Your task to perform on an android device: Open settings Image 0: 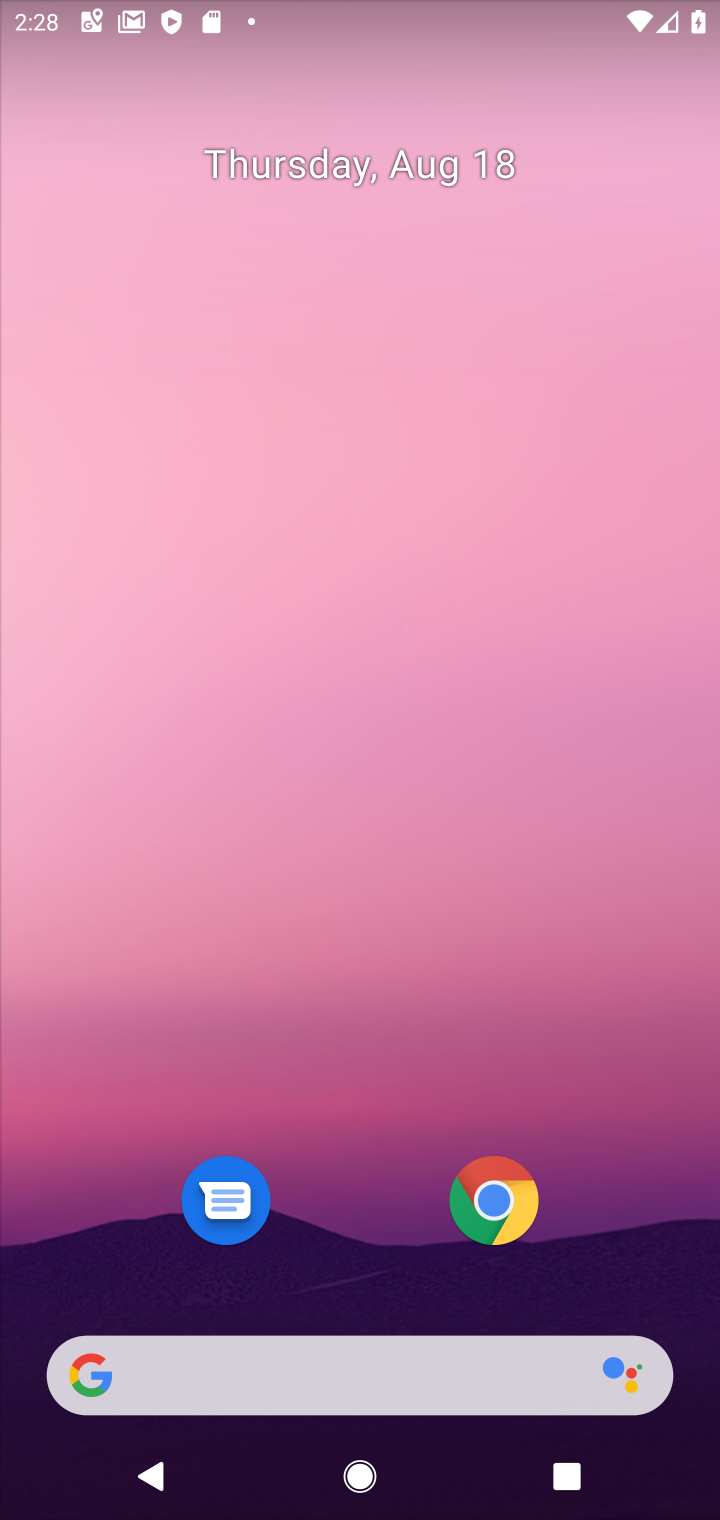
Step 0: press home button
Your task to perform on an android device: Open settings Image 1: 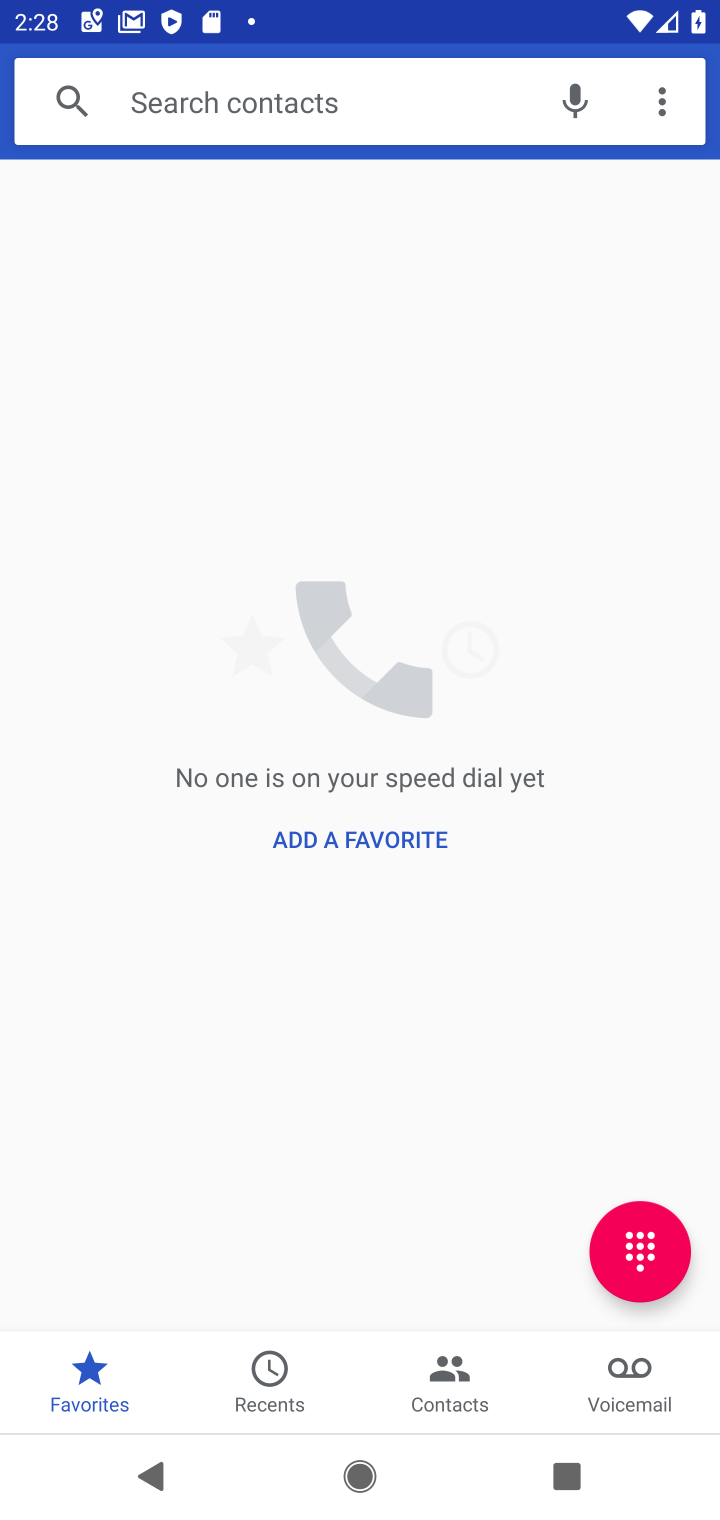
Step 1: drag from (371, 16) to (285, 19)
Your task to perform on an android device: Open settings Image 2: 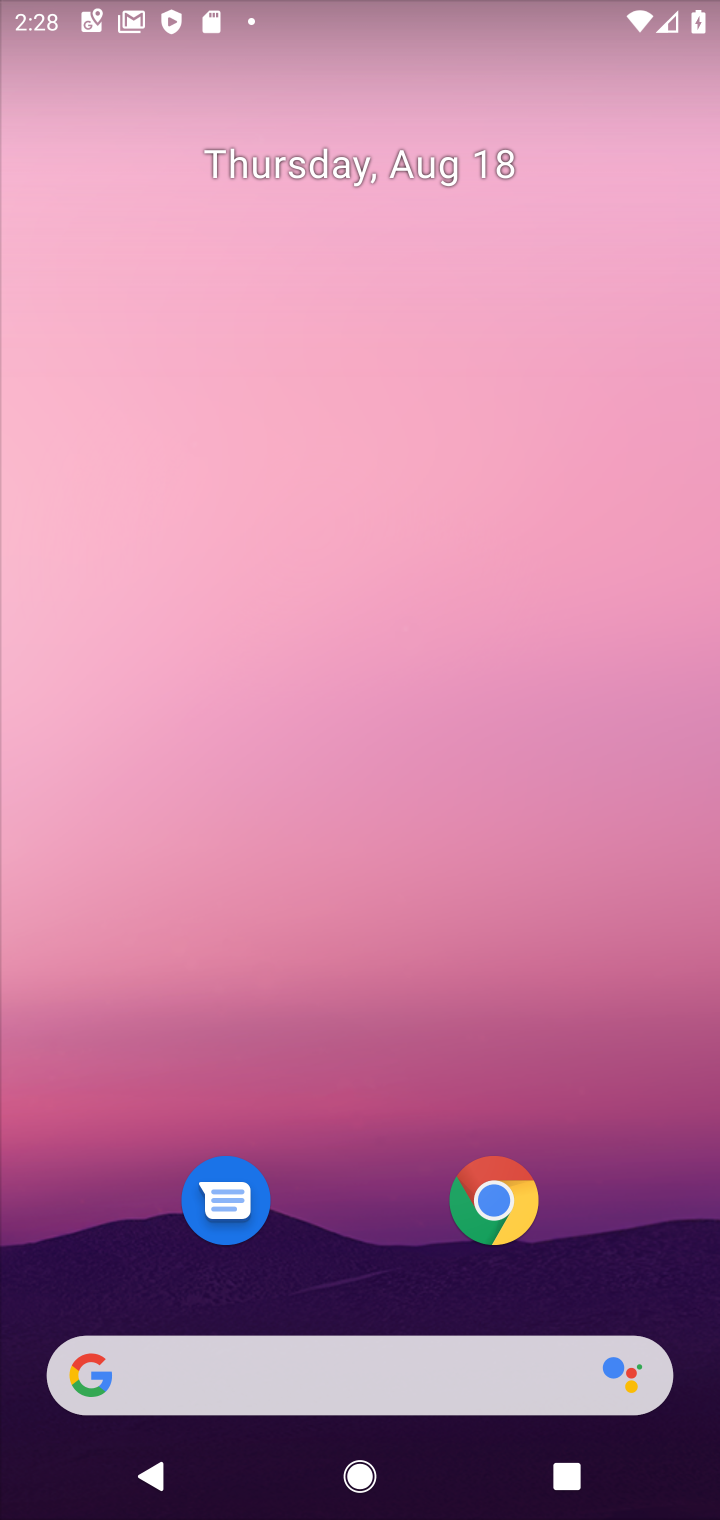
Step 2: drag from (361, 1271) to (513, 67)
Your task to perform on an android device: Open settings Image 3: 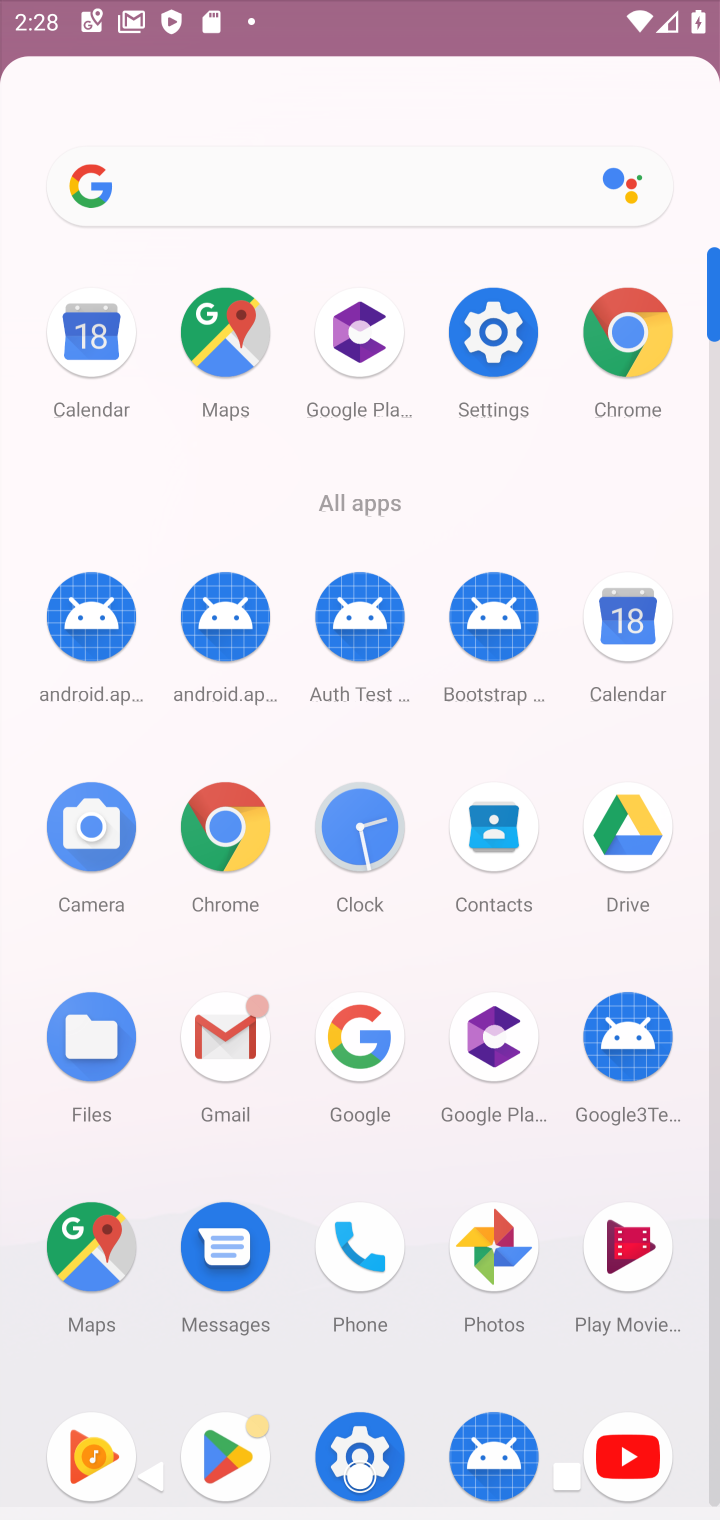
Step 3: click (490, 258)
Your task to perform on an android device: Open settings Image 4: 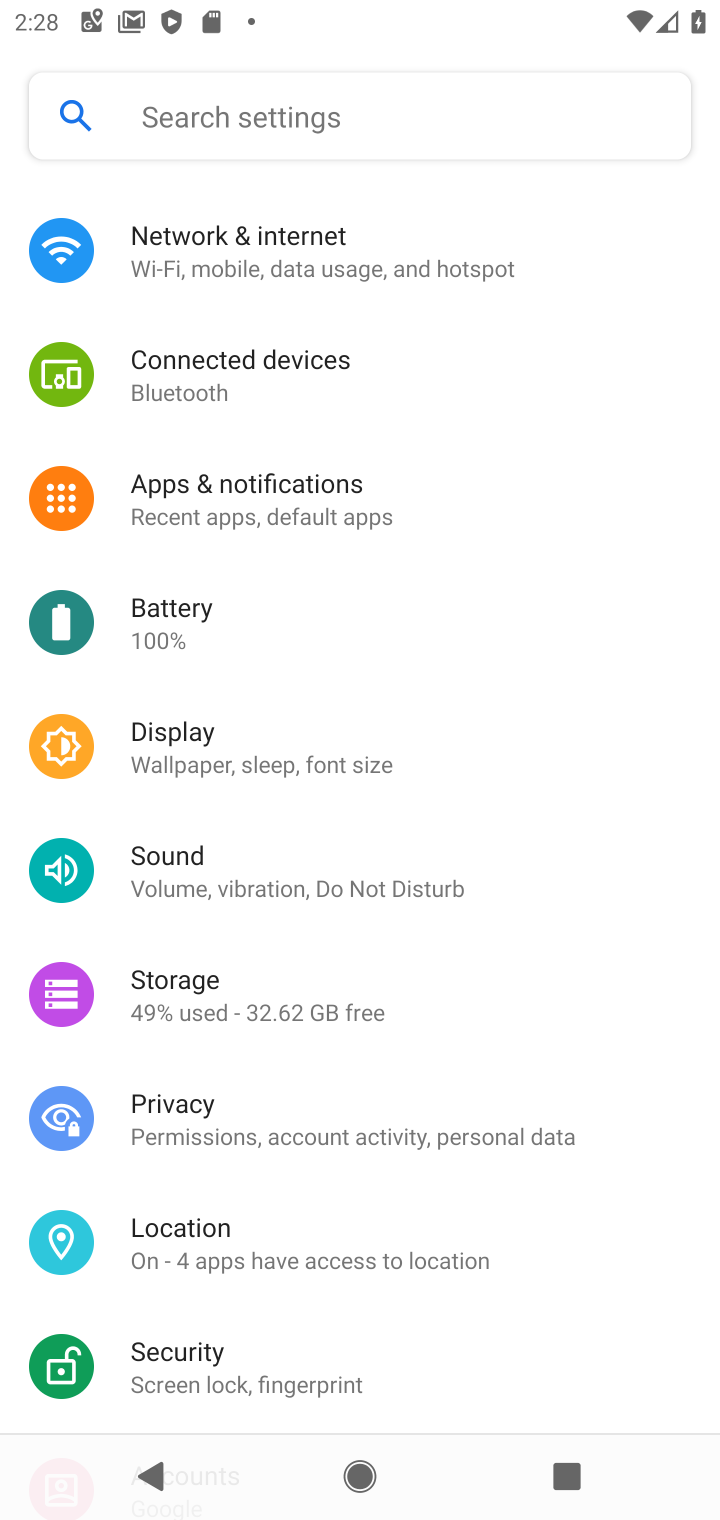
Step 4: task complete